Your task to perform on an android device: turn notification dots on Image 0: 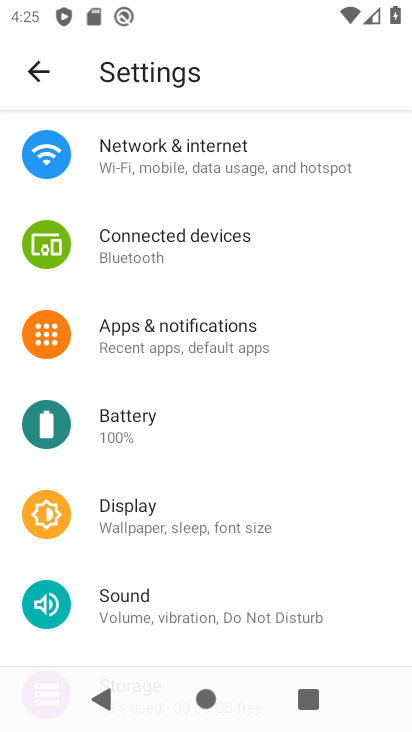
Step 0: click (222, 332)
Your task to perform on an android device: turn notification dots on Image 1: 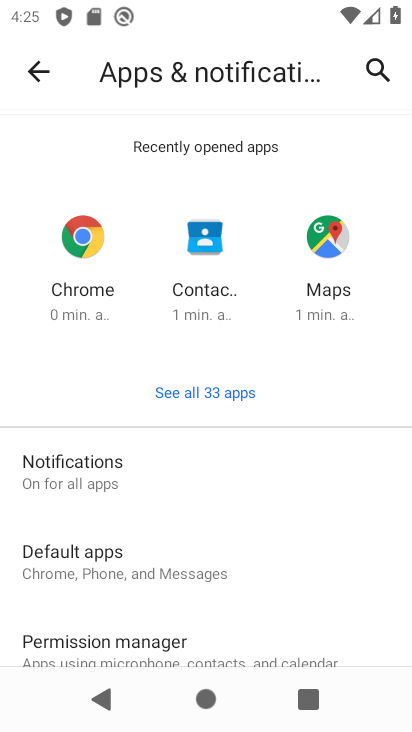
Step 1: drag from (212, 613) to (186, 184)
Your task to perform on an android device: turn notification dots on Image 2: 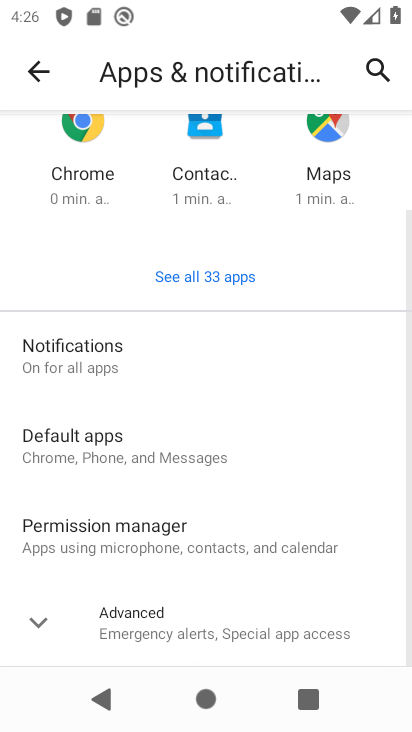
Step 2: click (208, 625)
Your task to perform on an android device: turn notification dots on Image 3: 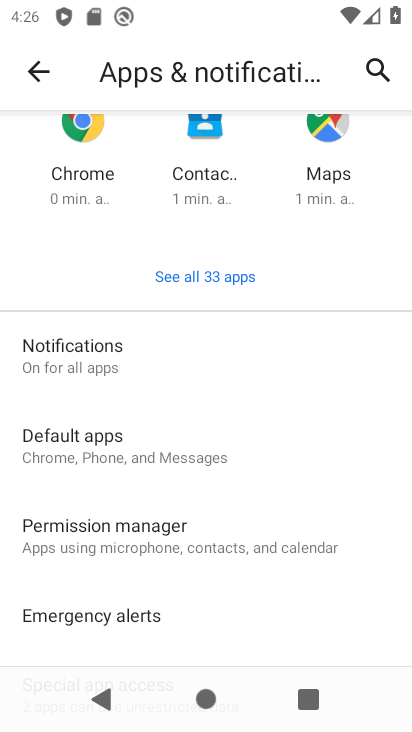
Step 3: drag from (146, 566) to (147, 249)
Your task to perform on an android device: turn notification dots on Image 4: 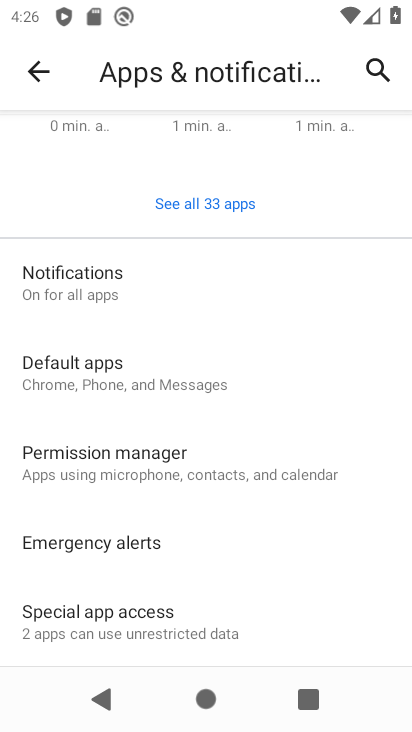
Step 4: click (127, 294)
Your task to perform on an android device: turn notification dots on Image 5: 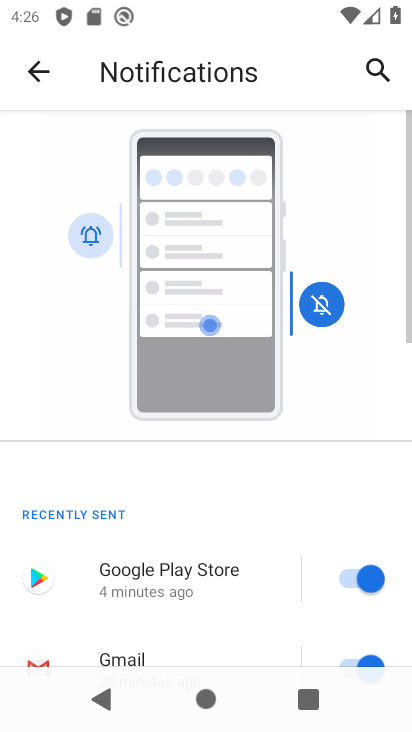
Step 5: drag from (199, 622) to (233, 62)
Your task to perform on an android device: turn notification dots on Image 6: 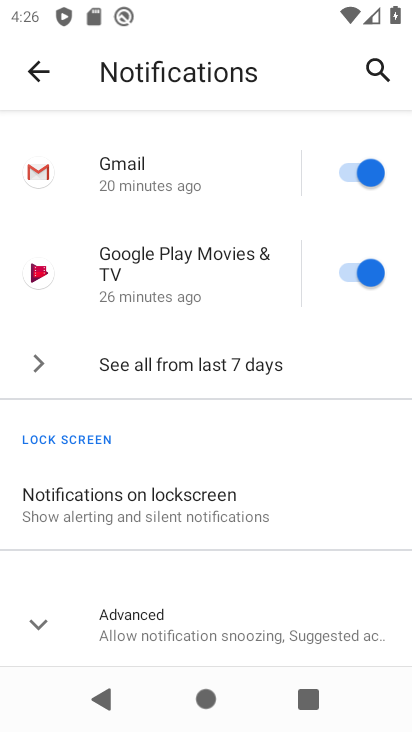
Step 6: drag from (170, 630) to (221, 315)
Your task to perform on an android device: turn notification dots on Image 7: 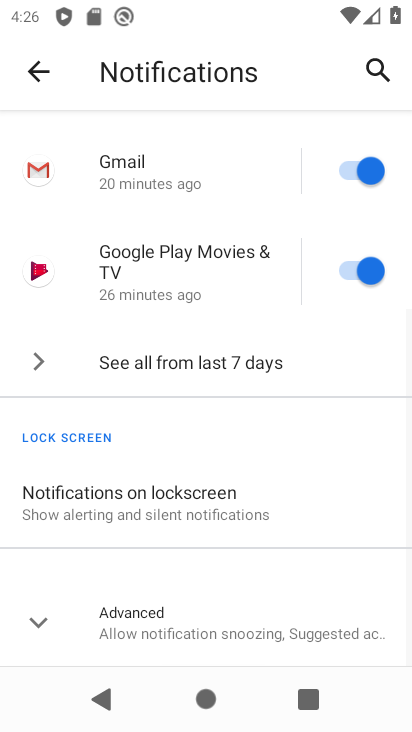
Step 7: click (252, 631)
Your task to perform on an android device: turn notification dots on Image 8: 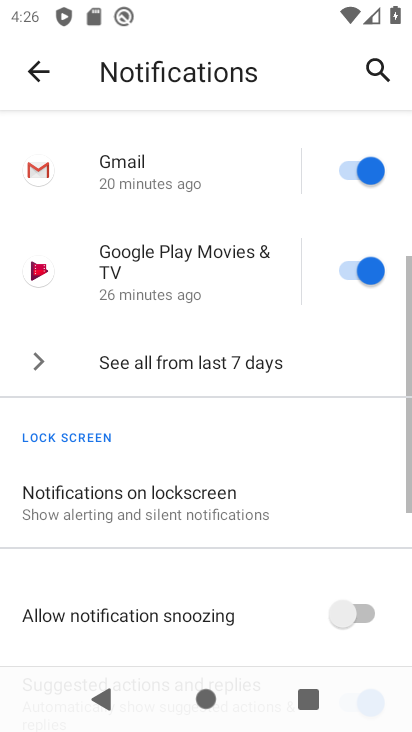
Step 8: task complete